Your task to perform on an android device: Open Wikipedia Image 0: 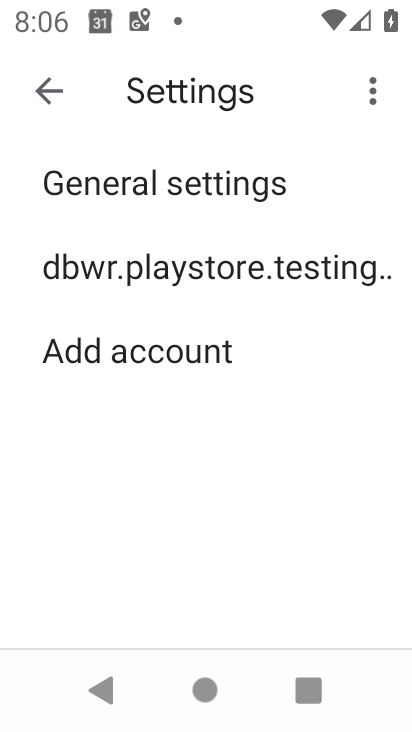
Step 0: click (400, 381)
Your task to perform on an android device: Open Wikipedia Image 1: 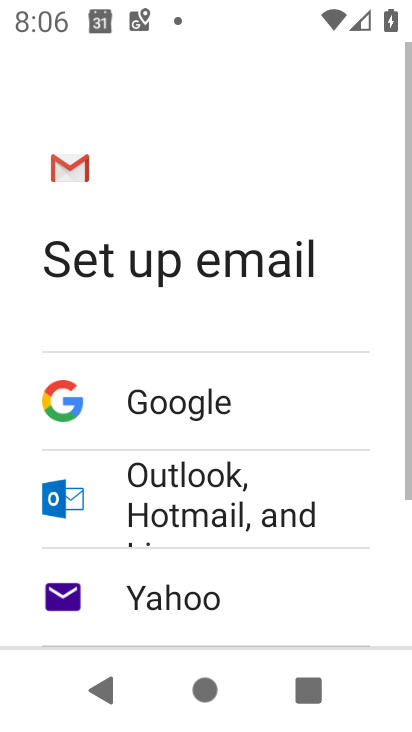
Step 1: press home button
Your task to perform on an android device: Open Wikipedia Image 2: 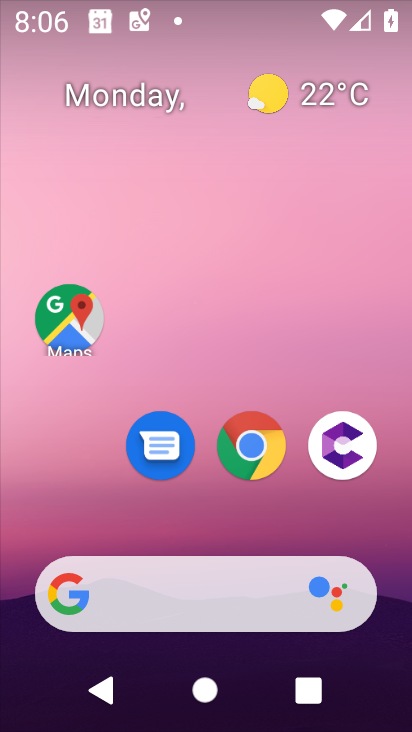
Step 2: click (84, 590)
Your task to perform on an android device: Open Wikipedia Image 3: 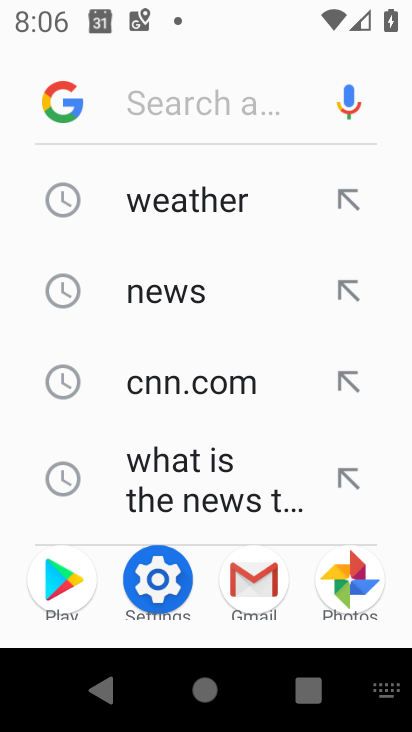
Step 3: type "Wikipedia"
Your task to perform on an android device: Open Wikipedia Image 4: 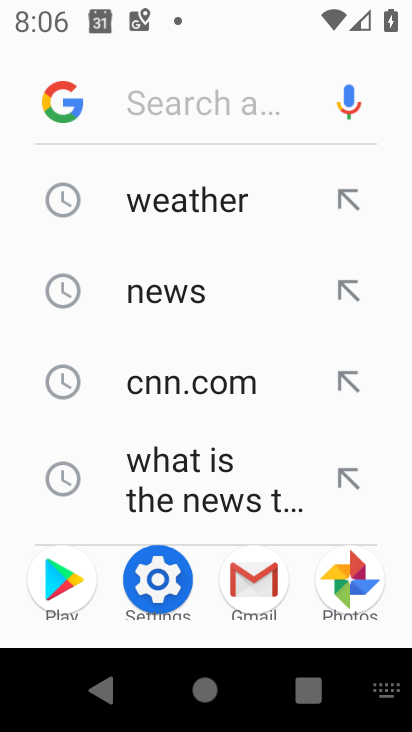
Step 4: click (214, 101)
Your task to perform on an android device: Open Wikipedia Image 5: 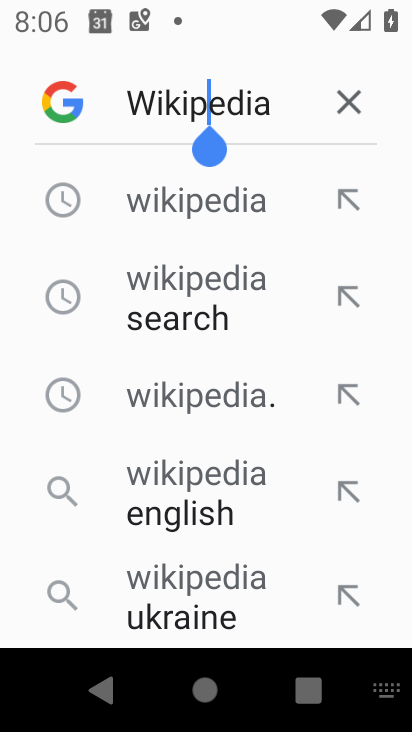
Step 5: click (201, 212)
Your task to perform on an android device: Open Wikipedia Image 6: 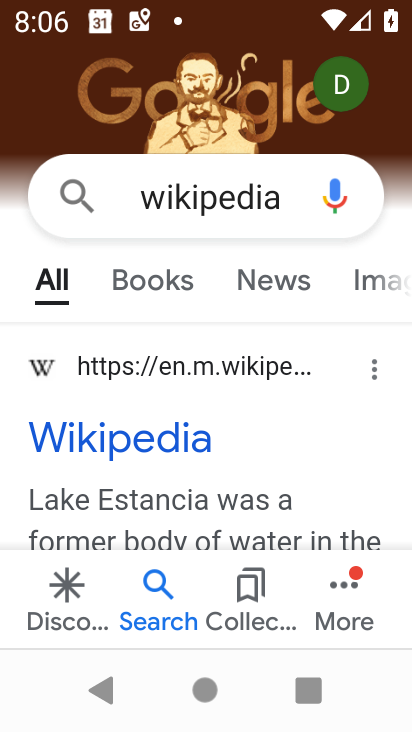
Step 6: click (114, 448)
Your task to perform on an android device: Open Wikipedia Image 7: 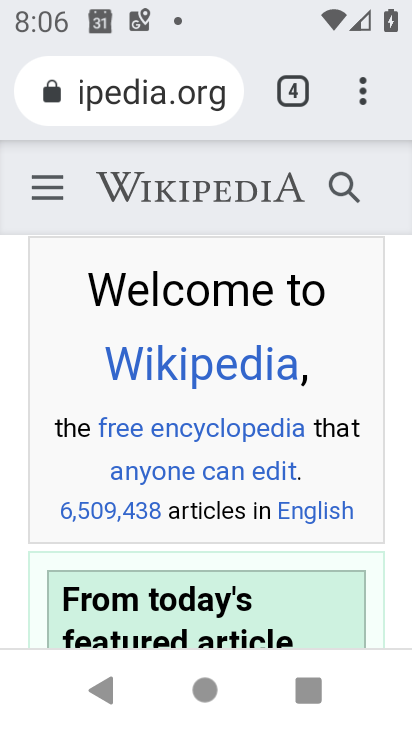
Step 7: task complete